Your task to perform on an android device: Search for vegetarian restaurants on Maps Image 0: 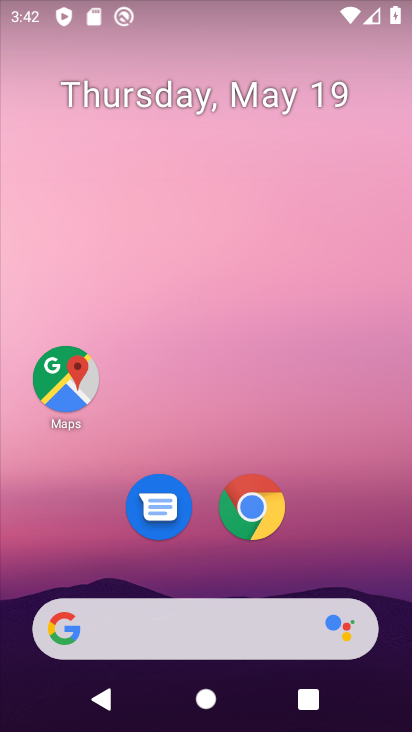
Step 0: click (253, 504)
Your task to perform on an android device: Search for vegetarian restaurants on Maps Image 1: 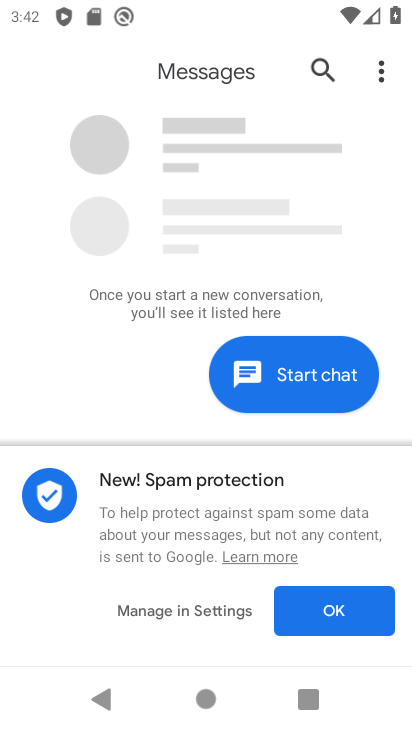
Step 1: press home button
Your task to perform on an android device: Search for vegetarian restaurants on Maps Image 2: 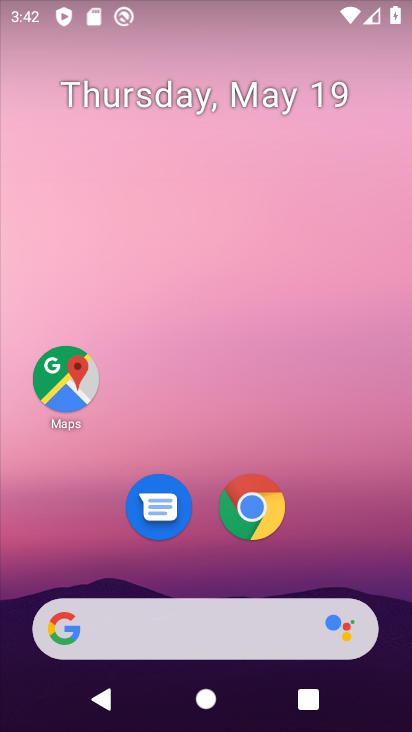
Step 2: click (51, 375)
Your task to perform on an android device: Search for vegetarian restaurants on Maps Image 3: 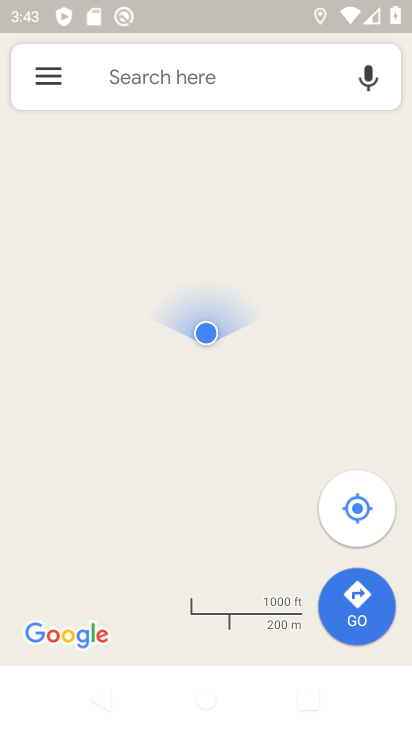
Step 3: click (140, 79)
Your task to perform on an android device: Search for vegetarian restaurants on Maps Image 4: 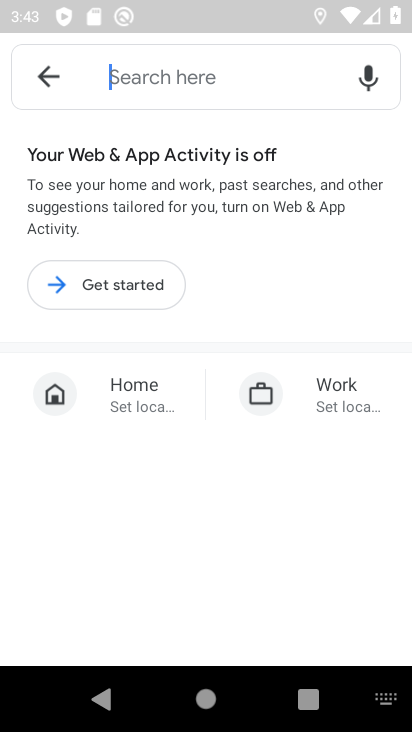
Step 4: type "vegetarian restaurants "
Your task to perform on an android device: Search for vegetarian restaurants on Maps Image 5: 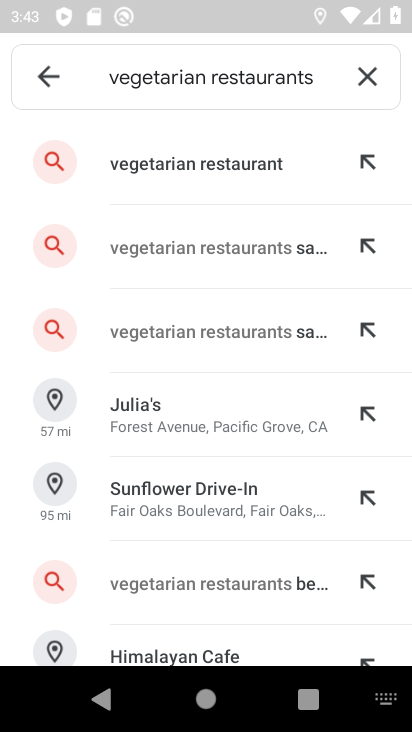
Step 5: click (172, 158)
Your task to perform on an android device: Search for vegetarian restaurants on Maps Image 6: 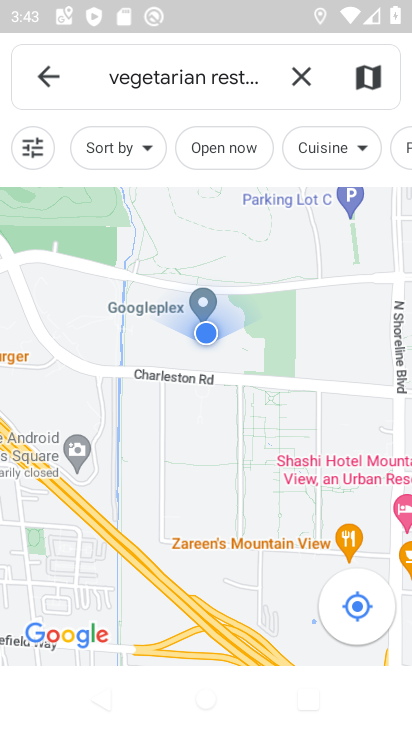
Step 6: task complete